Your task to perform on an android device: star an email in the gmail app Image 0: 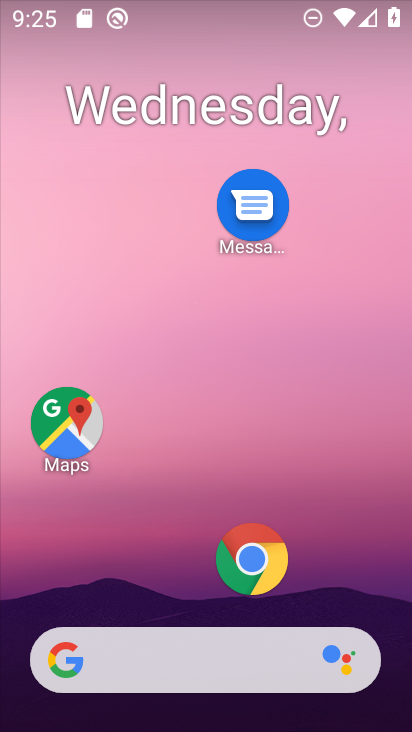
Step 0: drag from (276, 680) to (329, 350)
Your task to perform on an android device: star an email in the gmail app Image 1: 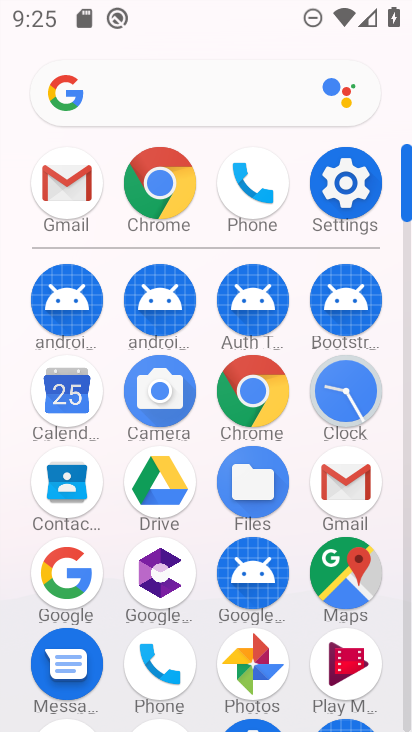
Step 1: click (336, 488)
Your task to perform on an android device: star an email in the gmail app Image 2: 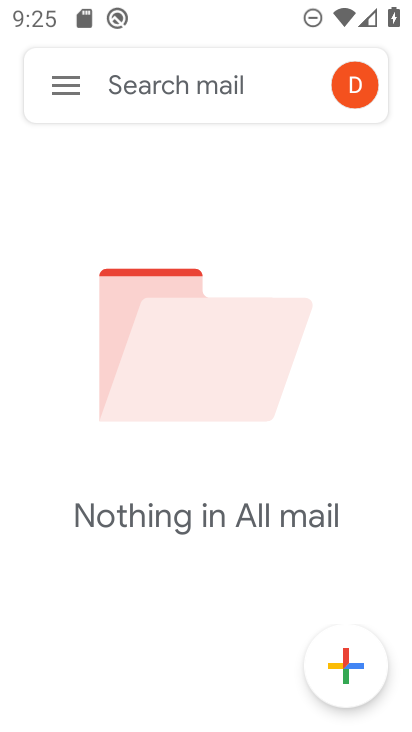
Step 2: click (61, 92)
Your task to perform on an android device: star an email in the gmail app Image 3: 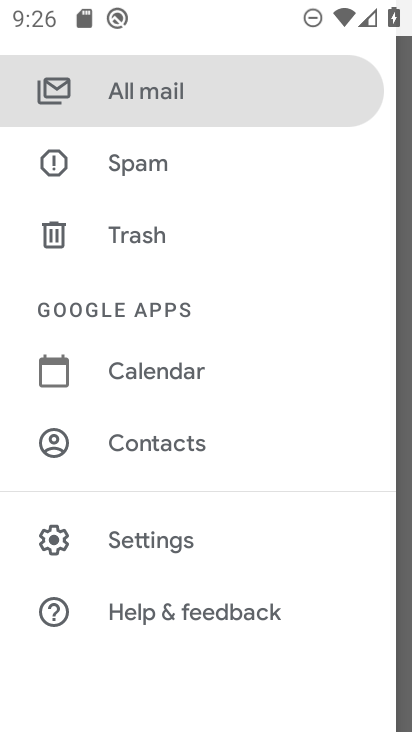
Step 3: click (154, 96)
Your task to perform on an android device: star an email in the gmail app Image 4: 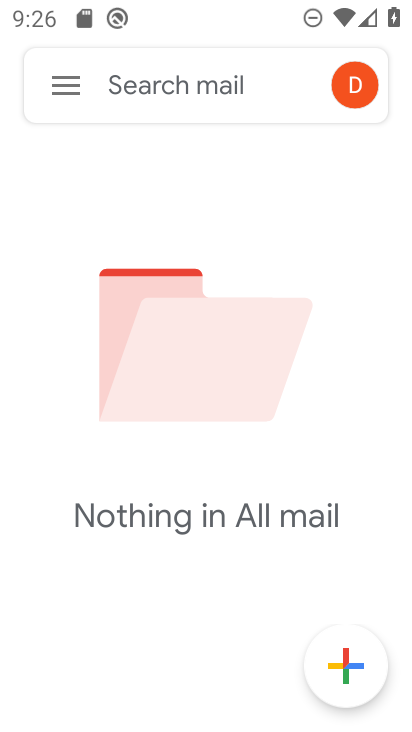
Step 4: task complete